Your task to perform on an android device: Go to Google Image 0: 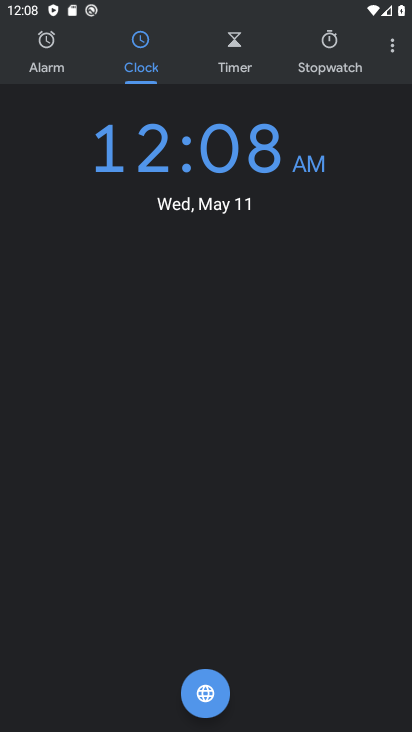
Step 0: press home button
Your task to perform on an android device: Go to Google Image 1: 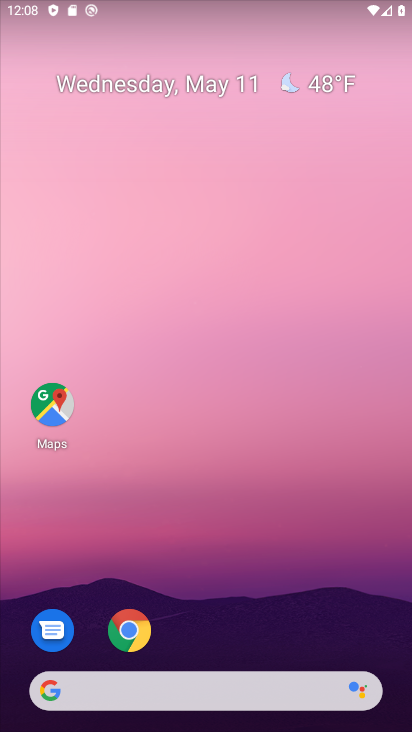
Step 1: drag from (201, 660) to (140, 0)
Your task to perform on an android device: Go to Google Image 2: 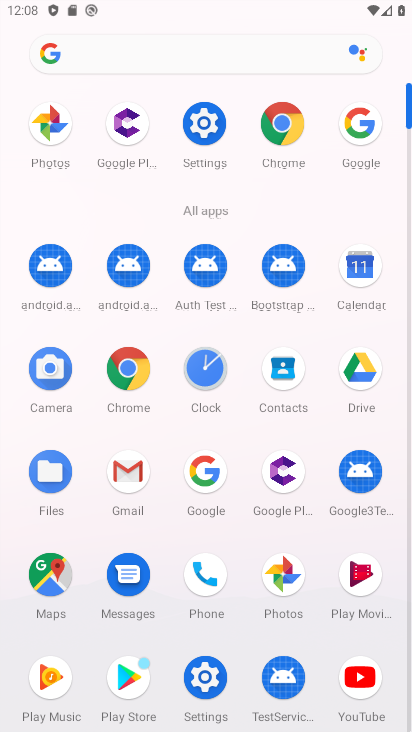
Step 2: click (210, 474)
Your task to perform on an android device: Go to Google Image 3: 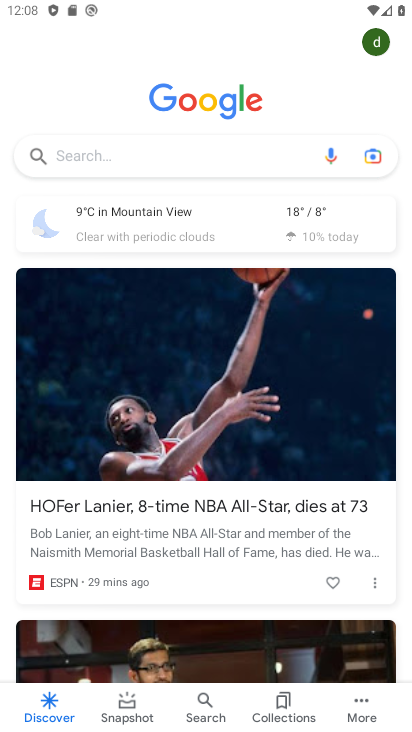
Step 3: task complete